Your task to perform on an android device: check out phone information Image 0: 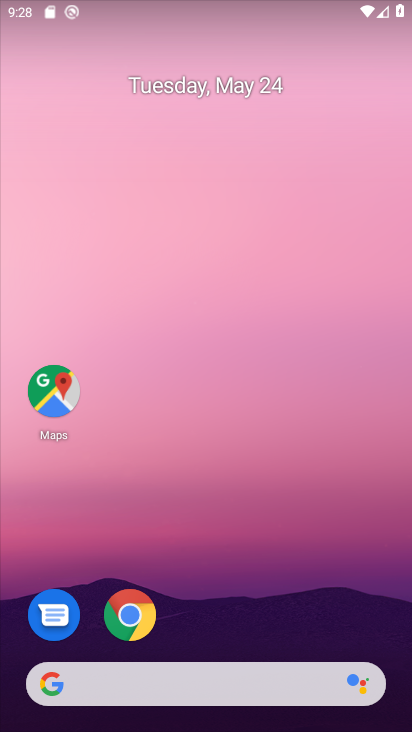
Step 0: drag from (379, 628) to (371, 205)
Your task to perform on an android device: check out phone information Image 1: 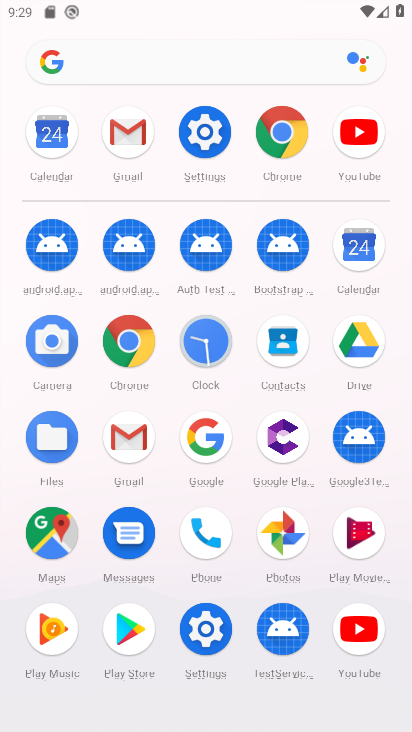
Step 1: click (216, 530)
Your task to perform on an android device: check out phone information Image 2: 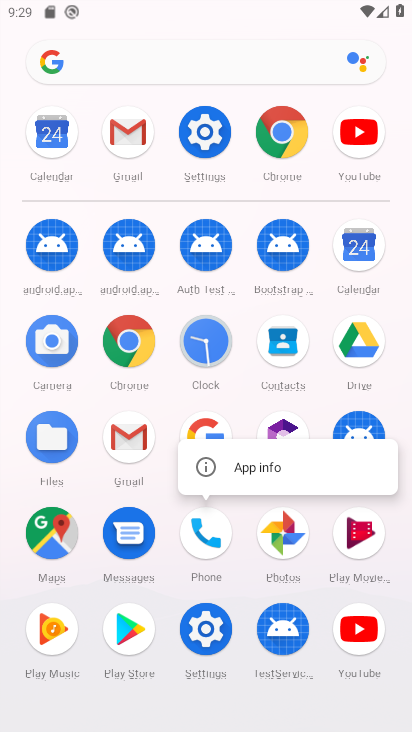
Step 2: click (216, 530)
Your task to perform on an android device: check out phone information Image 3: 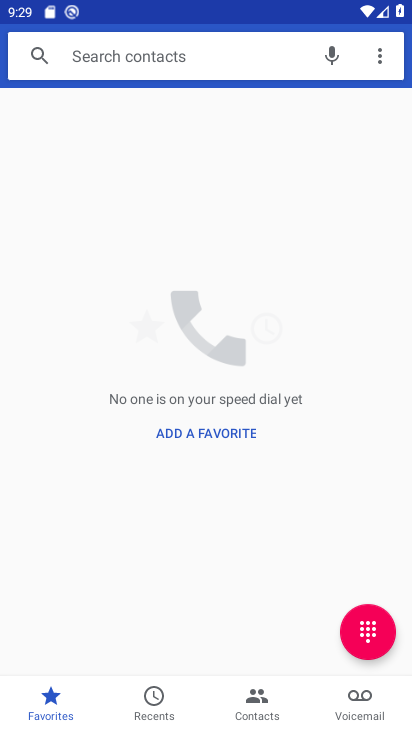
Step 3: click (153, 713)
Your task to perform on an android device: check out phone information Image 4: 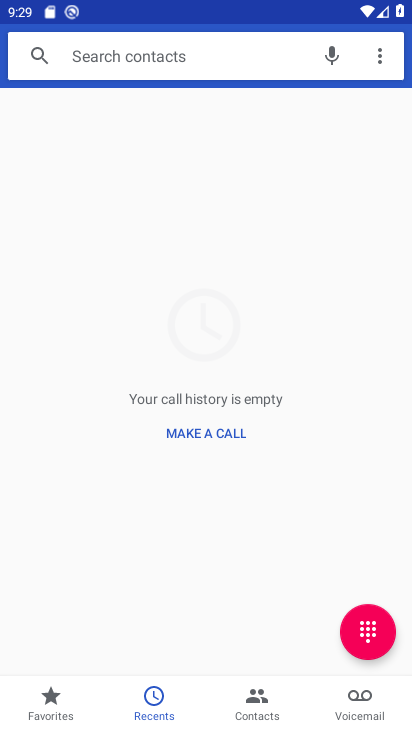
Step 4: task complete